Your task to perform on an android device: change your default location settings in chrome Image 0: 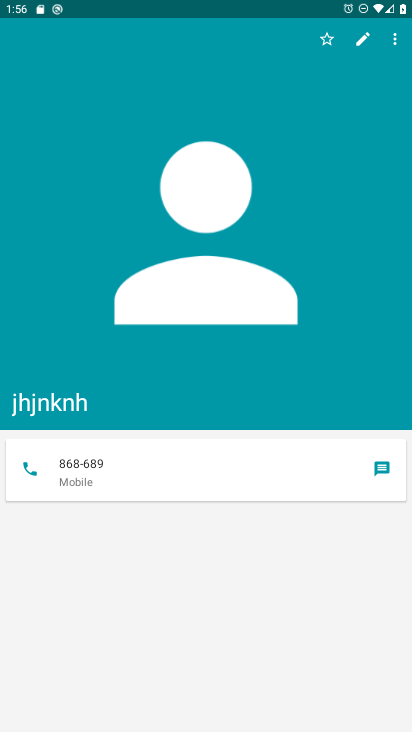
Step 0: press home button
Your task to perform on an android device: change your default location settings in chrome Image 1: 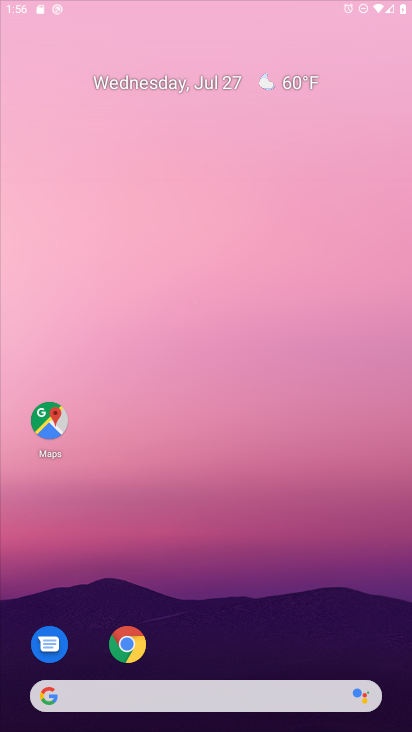
Step 1: drag from (190, 636) to (284, 114)
Your task to perform on an android device: change your default location settings in chrome Image 2: 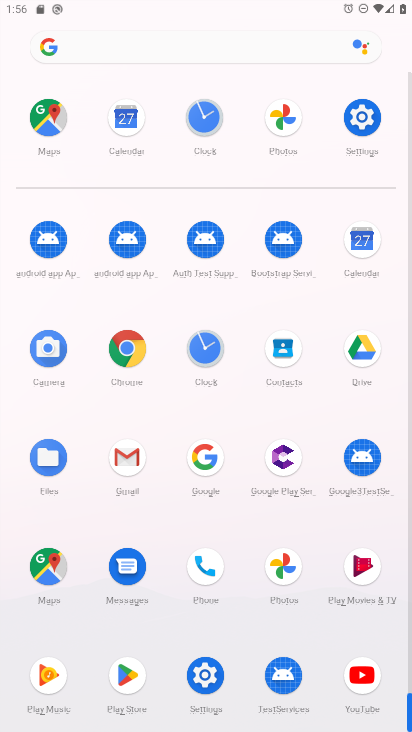
Step 2: click (124, 348)
Your task to perform on an android device: change your default location settings in chrome Image 3: 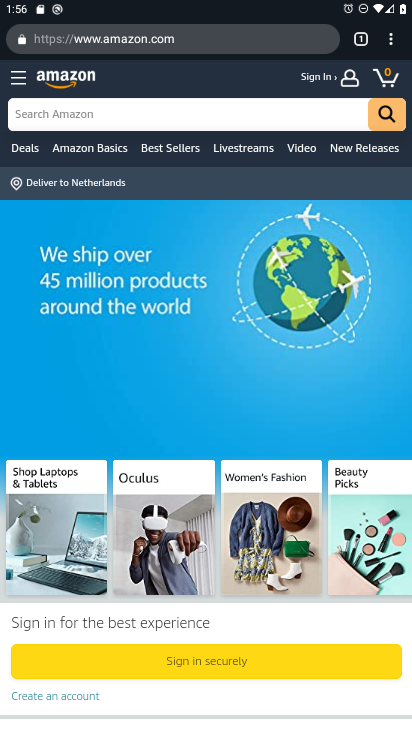
Step 3: drag from (386, 40) to (269, 528)
Your task to perform on an android device: change your default location settings in chrome Image 4: 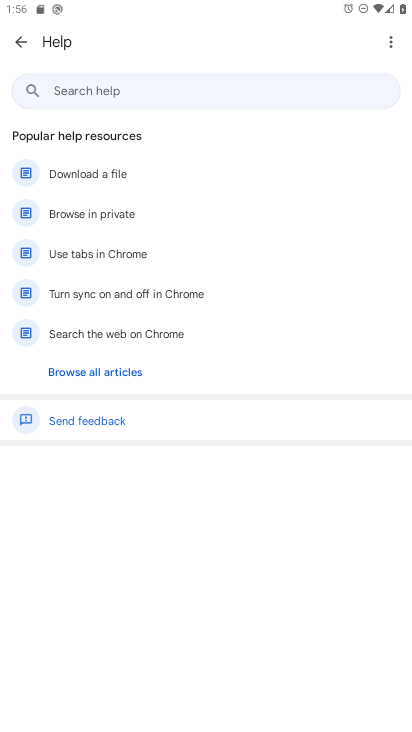
Step 4: press back button
Your task to perform on an android device: change your default location settings in chrome Image 5: 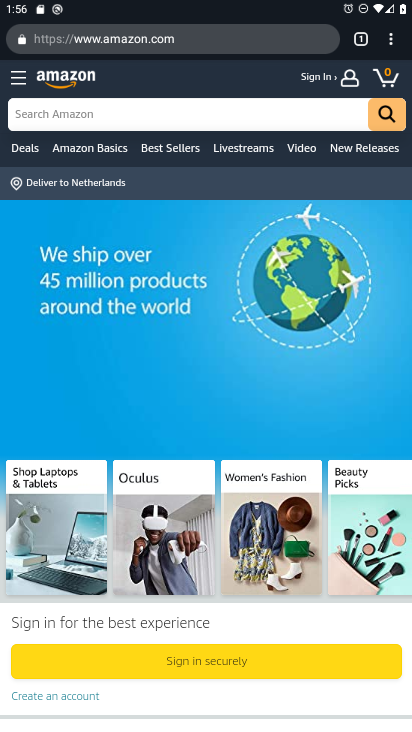
Step 5: drag from (390, 44) to (248, 520)
Your task to perform on an android device: change your default location settings in chrome Image 6: 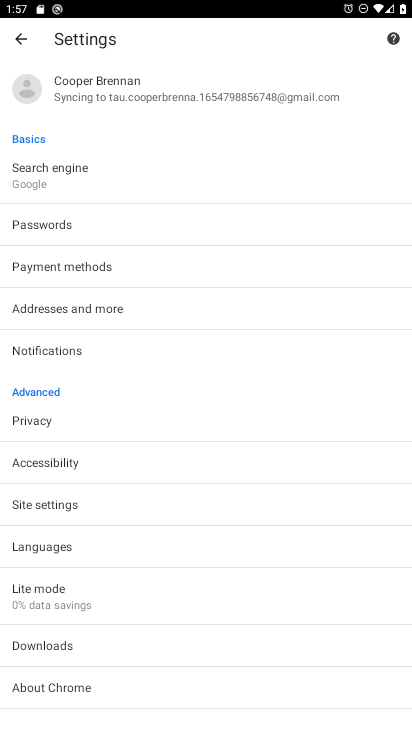
Step 6: click (83, 505)
Your task to perform on an android device: change your default location settings in chrome Image 7: 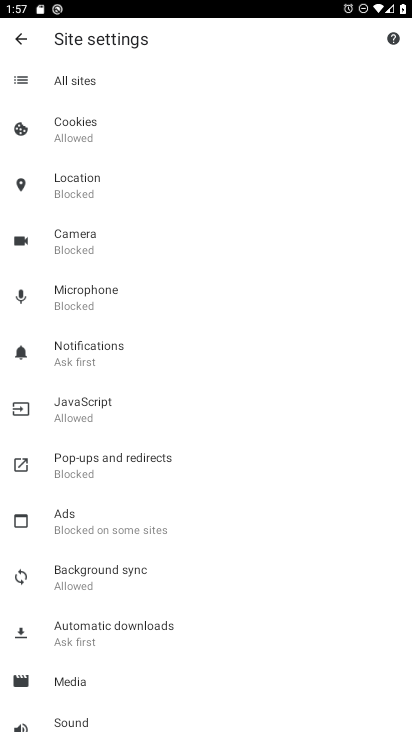
Step 7: click (97, 179)
Your task to perform on an android device: change your default location settings in chrome Image 8: 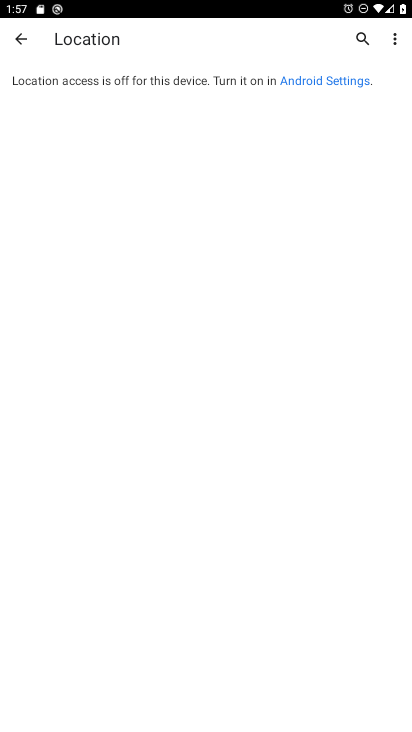
Step 8: task complete